Your task to perform on an android device: Search for Mexican restaurants on Maps Image 0: 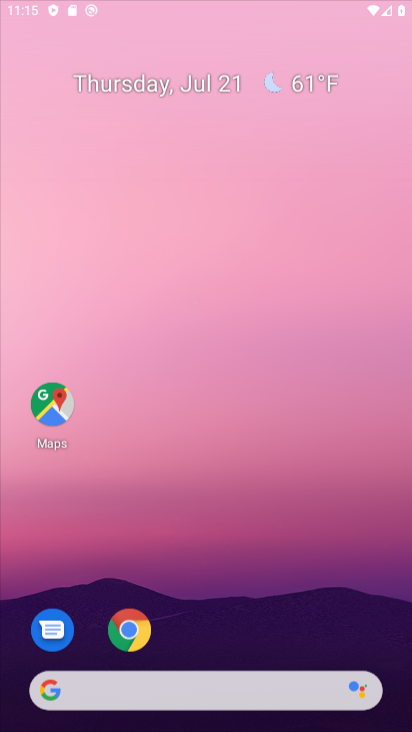
Step 0: click (251, 308)
Your task to perform on an android device: Search for Mexican restaurants on Maps Image 1: 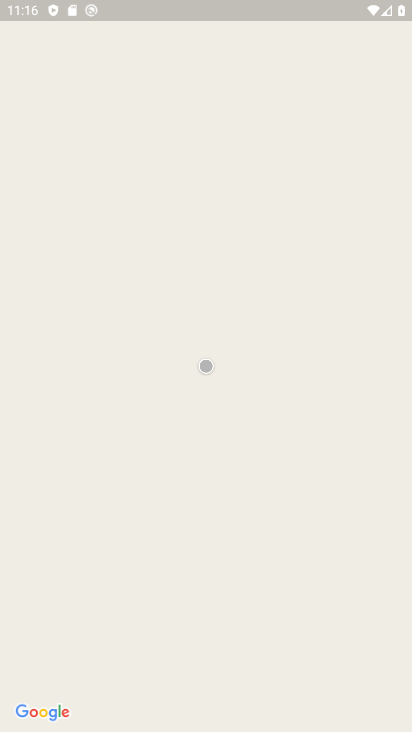
Step 1: press home button
Your task to perform on an android device: Search for Mexican restaurants on Maps Image 2: 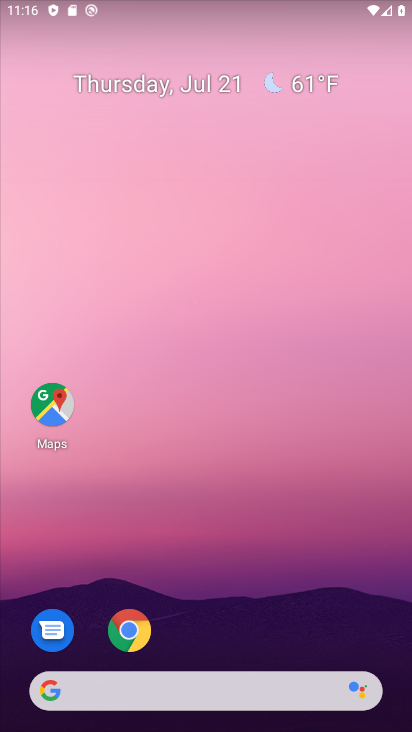
Step 2: drag from (191, 615) to (191, 186)
Your task to perform on an android device: Search for Mexican restaurants on Maps Image 3: 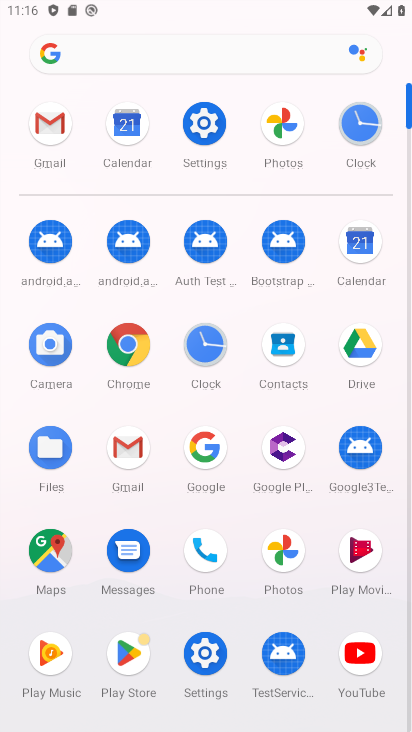
Step 3: click (41, 552)
Your task to perform on an android device: Search for Mexican restaurants on Maps Image 4: 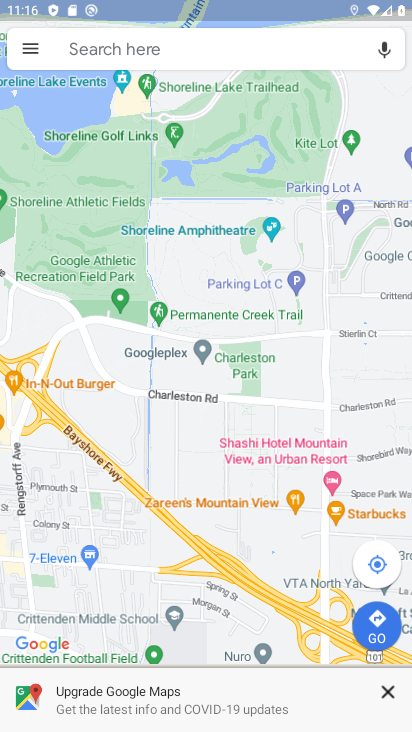
Step 4: click (88, 45)
Your task to perform on an android device: Search for Mexican restaurants on Maps Image 5: 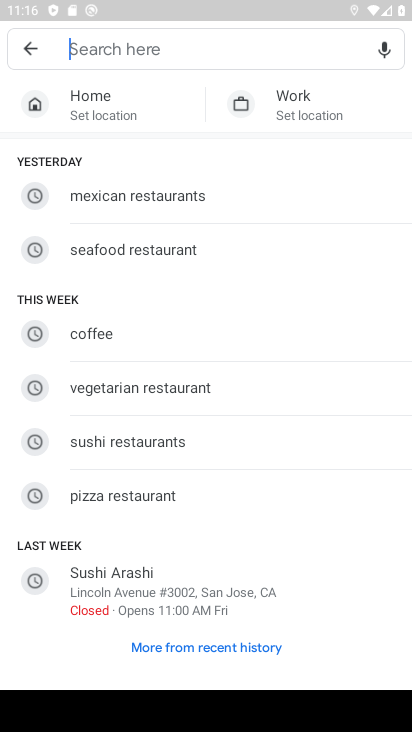
Step 5: click (145, 196)
Your task to perform on an android device: Search for Mexican restaurants on Maps Image 6: 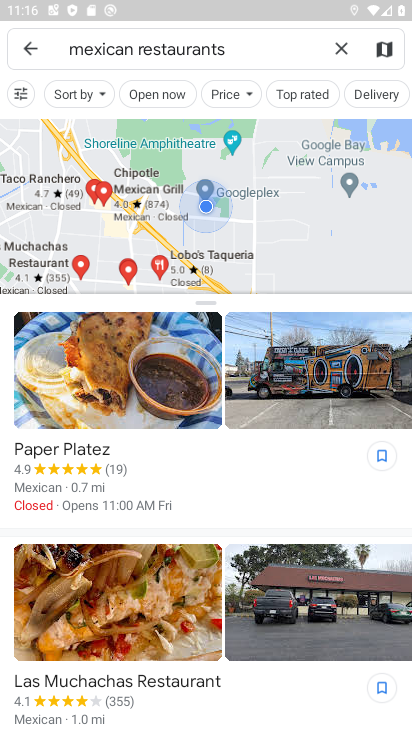
Step 6: task complete